Your task to perform on an android device: Go to sound settings Image 0: 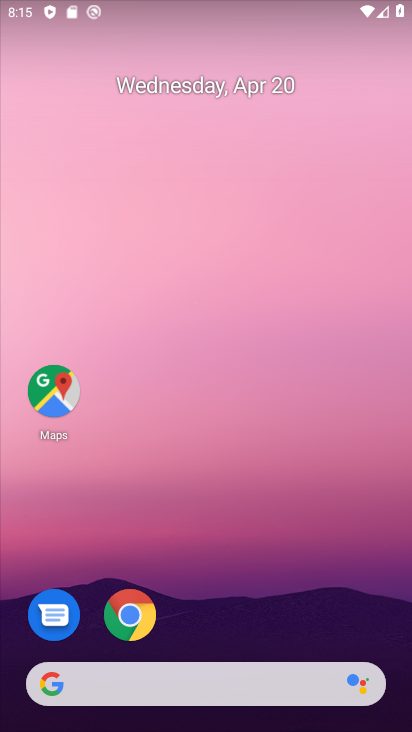
Step 0: drag from (276, 666) to (261, 25)
Your task to perform on an android device: Go to sound settings Image 1: 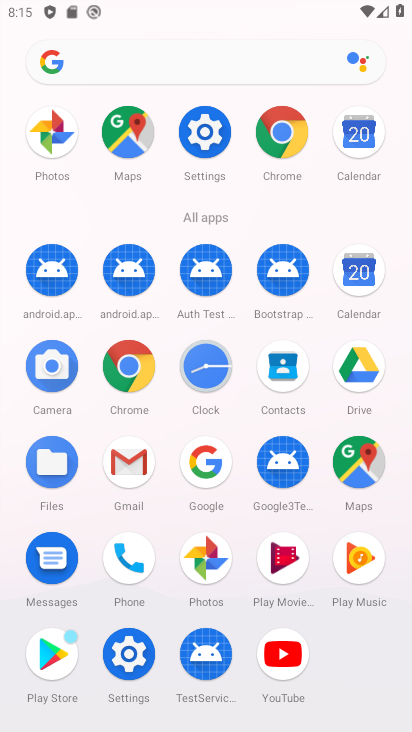
Step 1: click (211, 141)
Your task to perform on an android device: Go to sound settings Image 2: 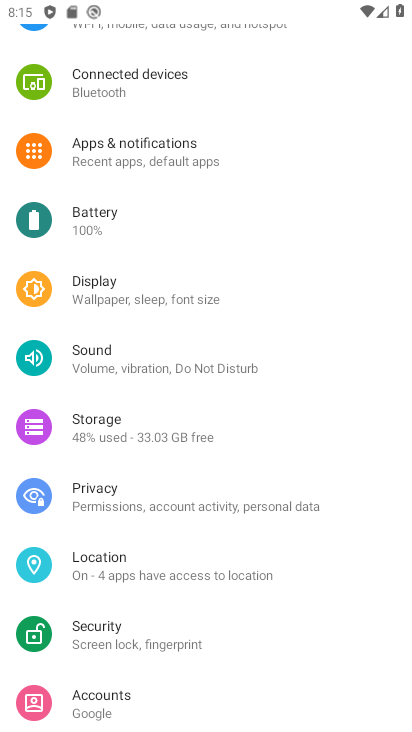
Step 2: click (195, 366)
Your task to perform on an android device: Go to sound settings Image 3: 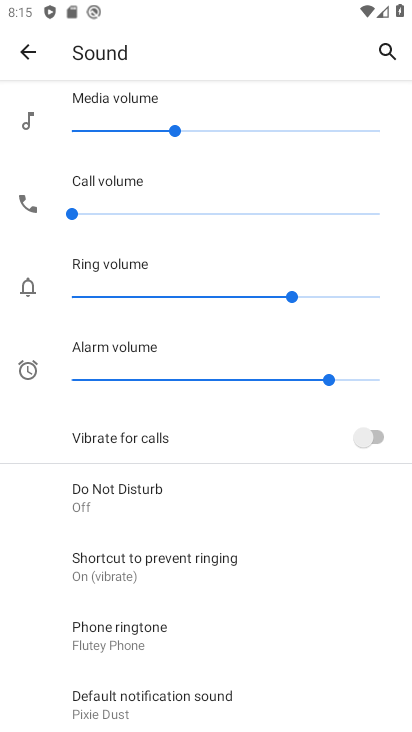
Step 3: task complete